Your task to perform on an android device: Open the calendar app, open the side menu, and click the "Day" option Image 0: 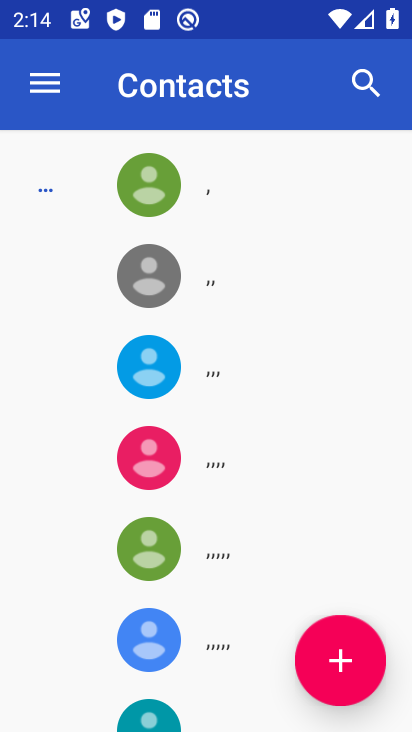
Step 0: press home button
Your task to perform on an android device: Open the calendar app, open the side menu, and click the "Day" option Image 1: 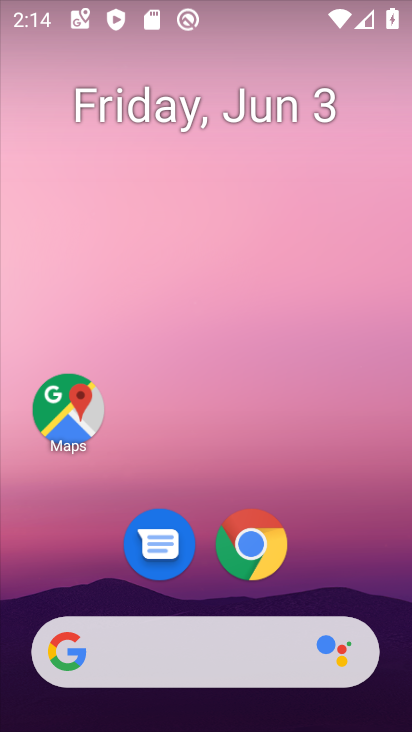
Step 1: drag from (310, 582) to (317, 210)
Your task to perform on an android device: Open the calendar app, open the side menu, and click the "Day" option Image 2: 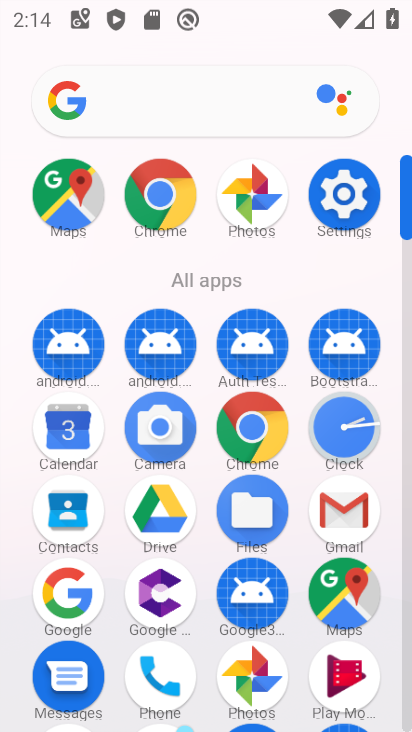
Step 2: click (59, 448)
Your task to perform on an android device: Open the calendar app, open the side menu, and click the "Day" option Image 3: 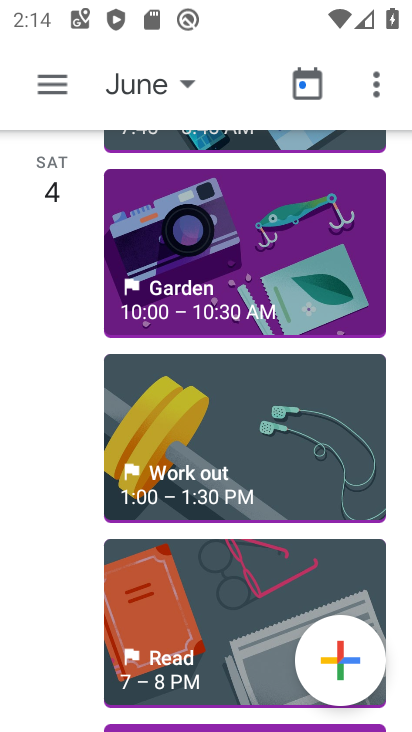
Step 3: click (48, 85)
Your task to perform on an android device: Open the calendar app, open the side menu, and click the "Day" option Image 4: 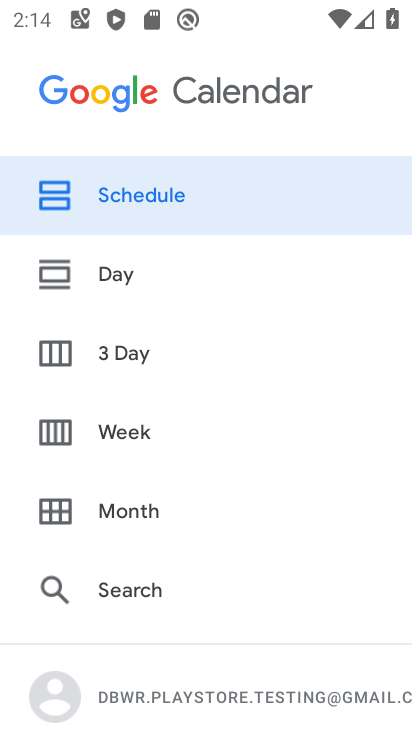
Step 4: click (116, 278)
Your task to perform on an android device: Open the calendar app, open the side menu, and click the "Day" option Image 5: 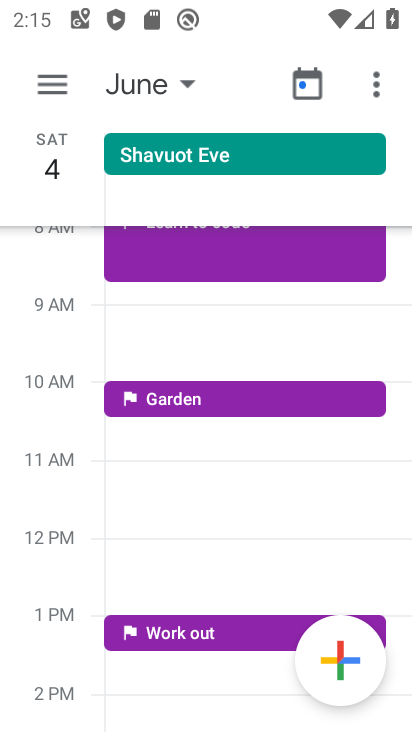
Step 5: task complete